Your task to perform on an android device: change timer sound Image 0: 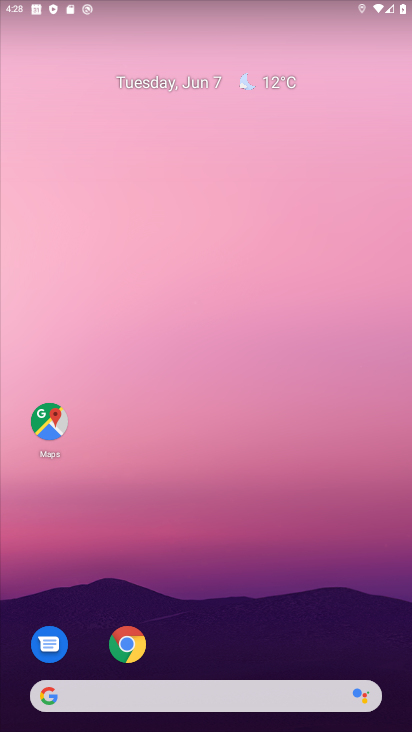
Step 0: drag from (294, 600) to (283, 51)
Your task to perform on an android device: change timer sound Image 1: 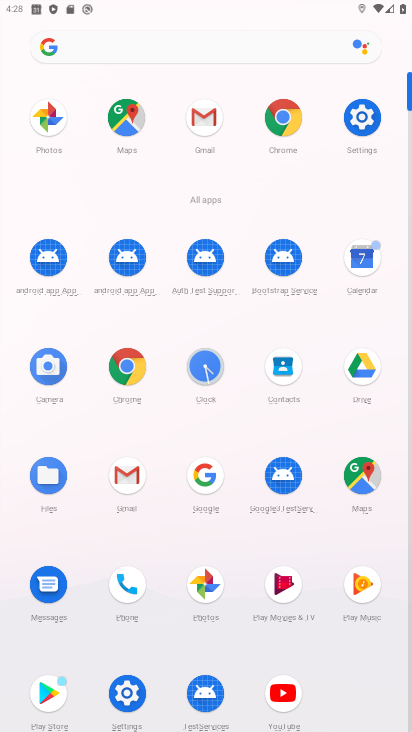
Step 1: click (205, 377)
Your task to perform on an android device: change timer sound Image 2: 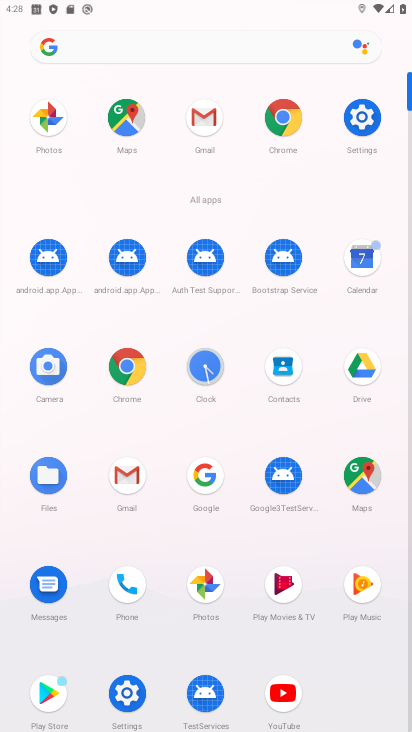
Step 2: click (206, 371)
Your task to perform on an android device: change timer sound Image 3: 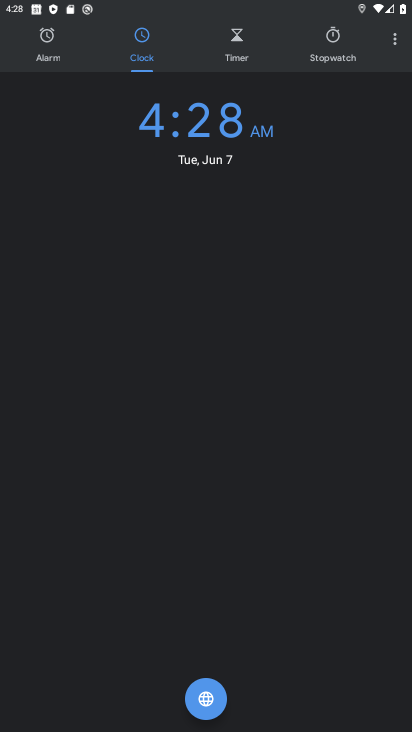
Step 3: click (393, 37)
Your task to perform on an android device: change timer sound Image 4: 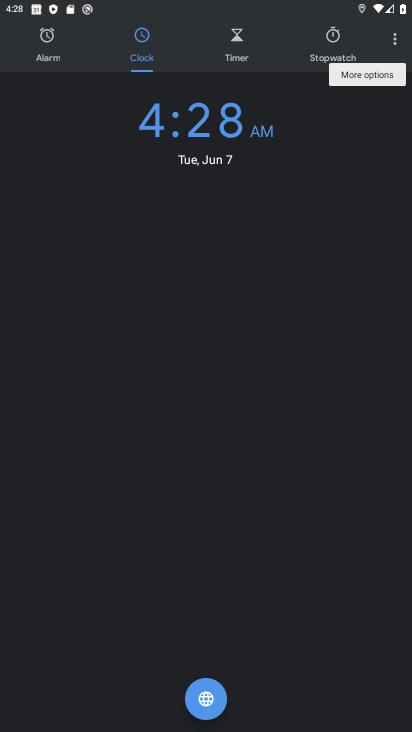
Step 4: click (402, 46)
Your task to perform on an android device: change timer sound Image 5: 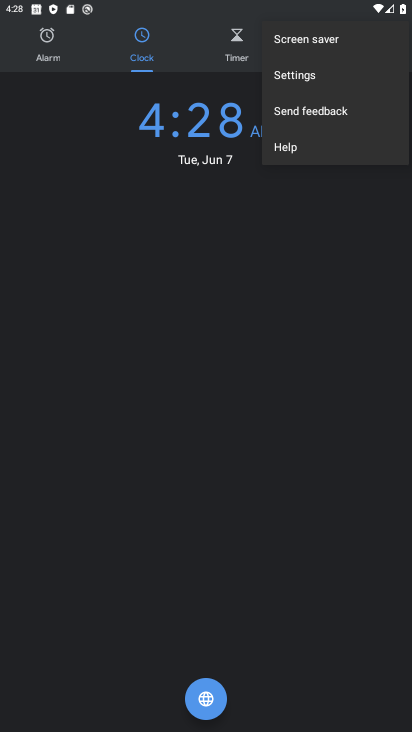
Step 5: click (298, 79)
Your task to perform on an android device: change timer sound Image 6: 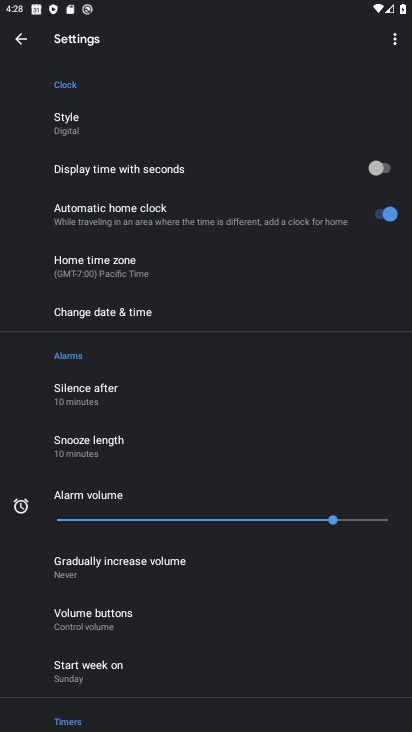
Step 6: drag from (250, 708) to (279, 454)
Your task to perform on an android device: change timer sound Image 7: 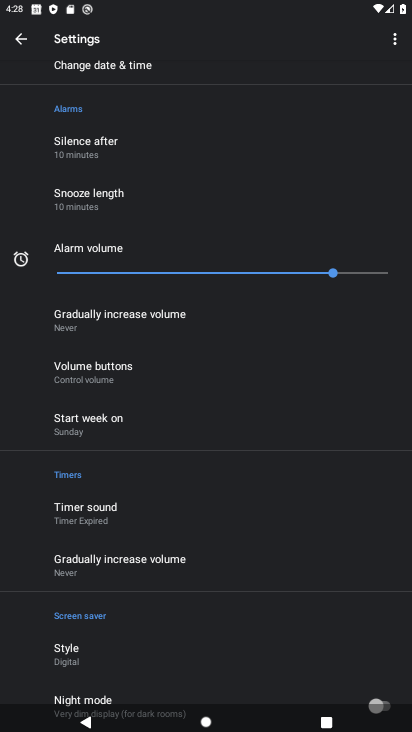
Step 7: click (90, 520)
Your task to perform on an android device: change timer sound Image 8: 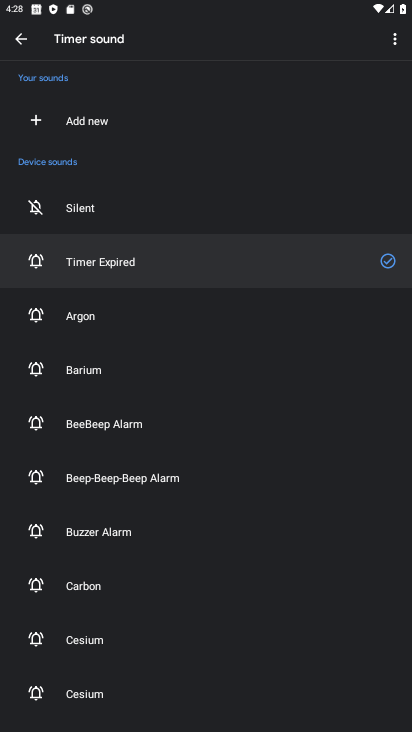
Step 8: click (38, 534)
Your task to perform on an android device: change timer sound Image 9: 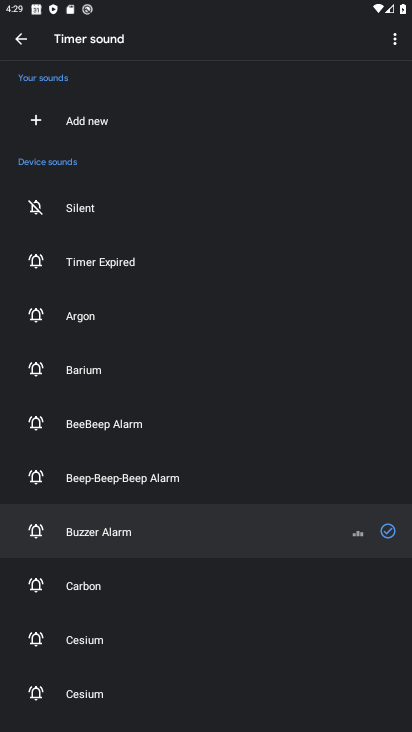
Step 9: task complete